Your task to perform on an android device: Go to eBay Image 0: 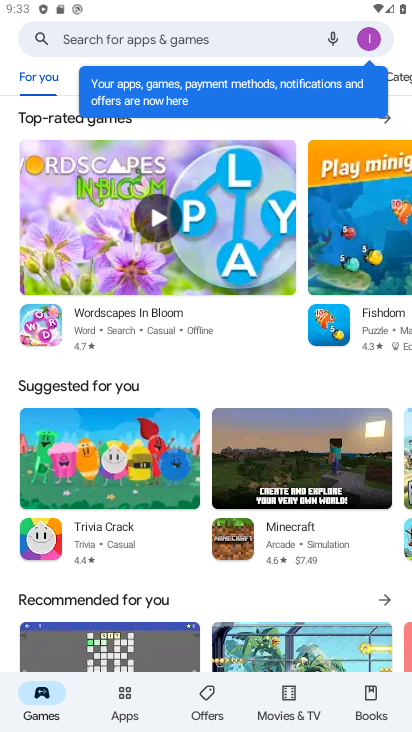
Step 0: press home button
Your task to perform on an android device: Go to eBay Image 1: 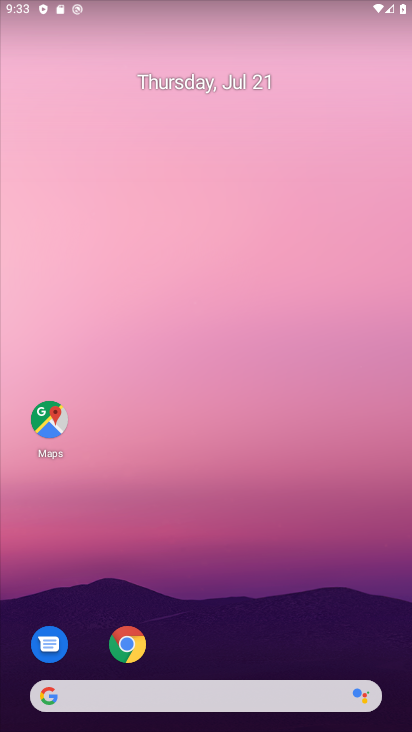
Step 1: click (124, 658)
Your task to perform on an android device: Go to eBay Image 2: 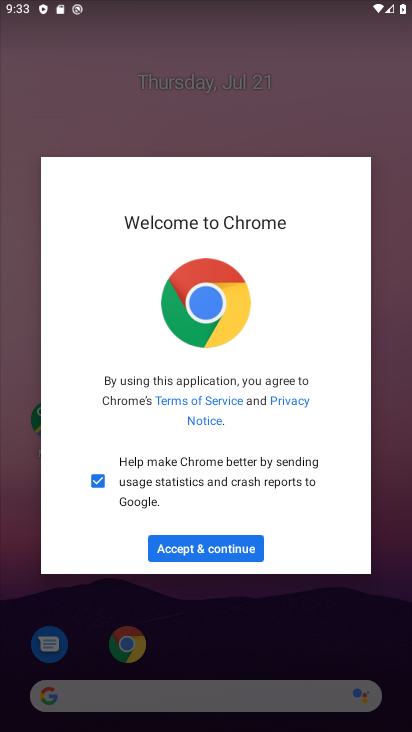
Step 2: click (224, 556)
Your task to perform on an android device: Go to eBay Image 3: 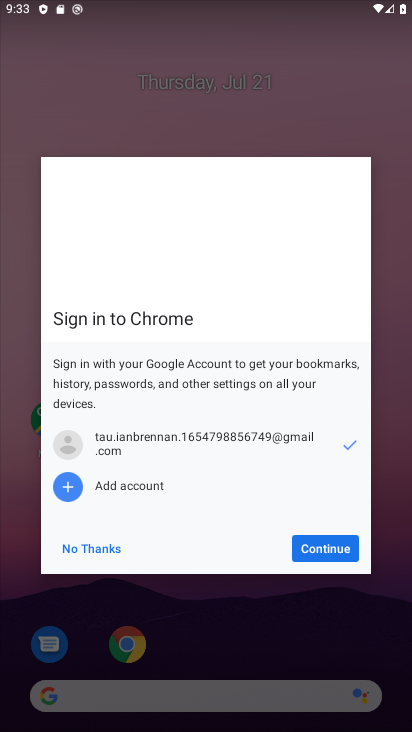
Step 3: click (325, 542)
Your task to perform on an android device: Go to eBay Image 4: 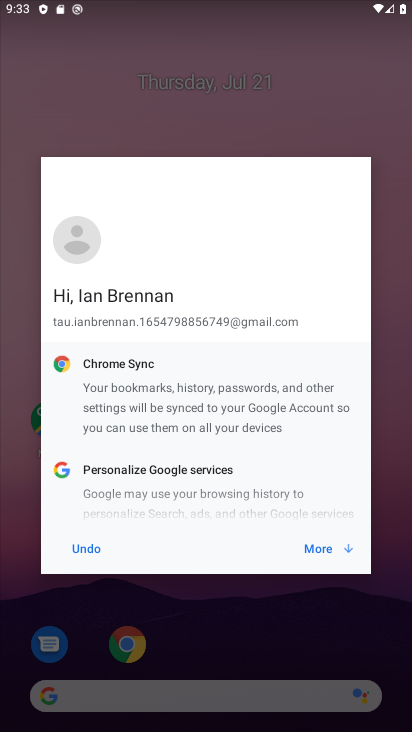
Step 4: click (325, 542)
Your task to perform on an android device: Go to eBay Image 5: 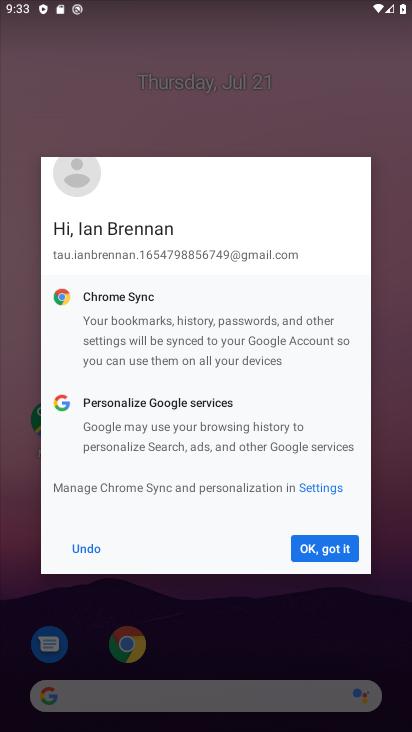
Step 5: click (325, 542)
Your task to perform on an android device: Go to eBay Image 6: 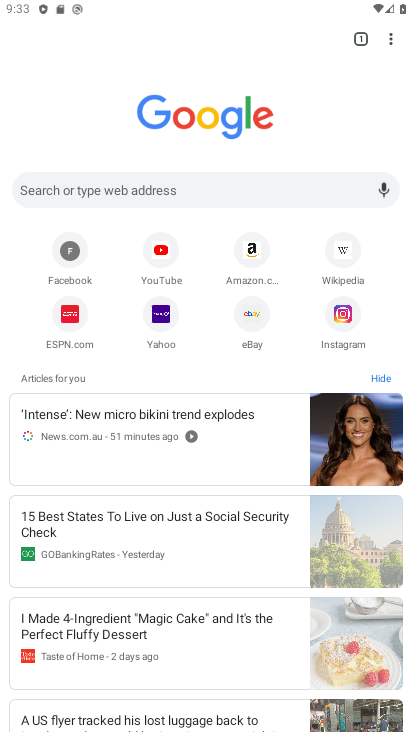
Step 6: click (255, 339)
Your task to perform on an android device: Go to eBay Image 7: 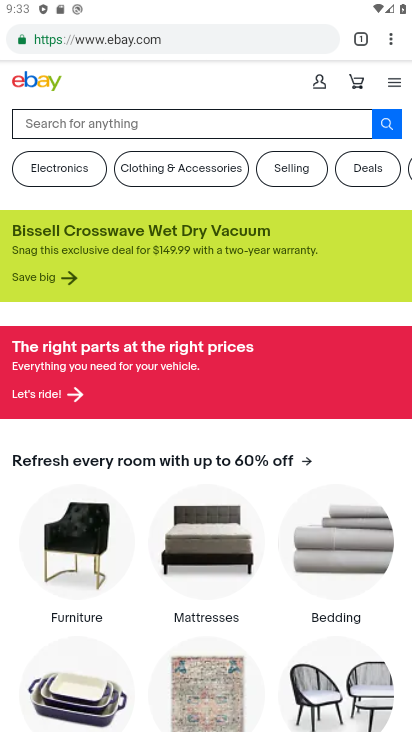
Step 7: task complete